Your task to perform on an android device: stop showing notifications on the lock screen Image 0: 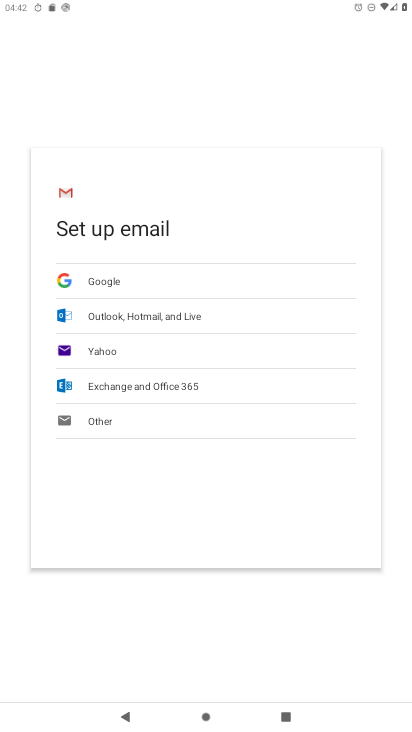
Step 0: press home button
Your task to perform on an android device: stop showing notifications on the lock screen Image 1: 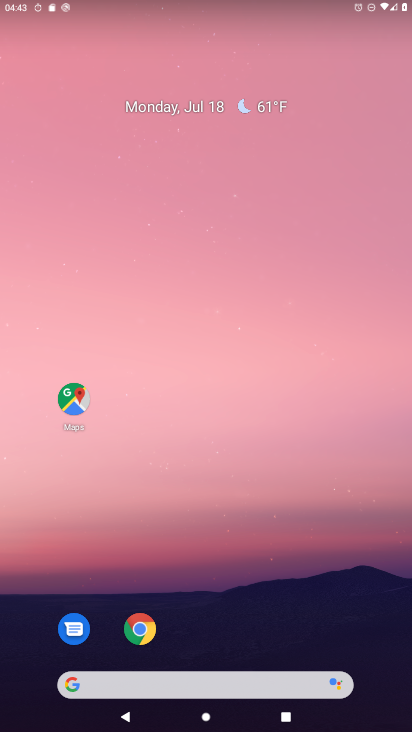
Step 1: drag from (204, 686) to (277, 91)
Your task to perform on an android device: stop showing notifications on the lock screen Image 2: 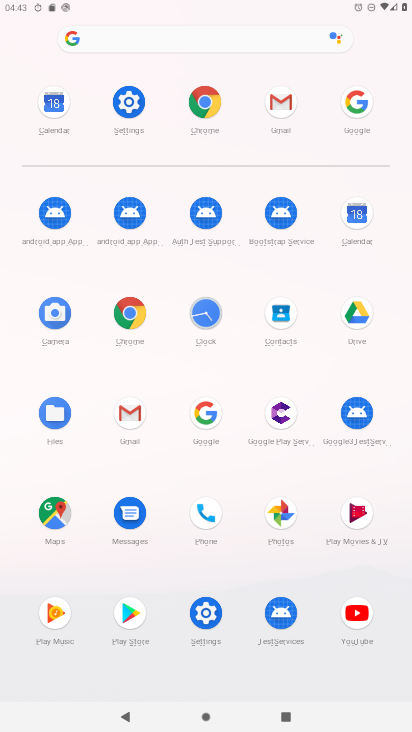
Step 2: click (132, 103)
Your task to perform on an android device: stop showing notifications on the lock screen Image 3: 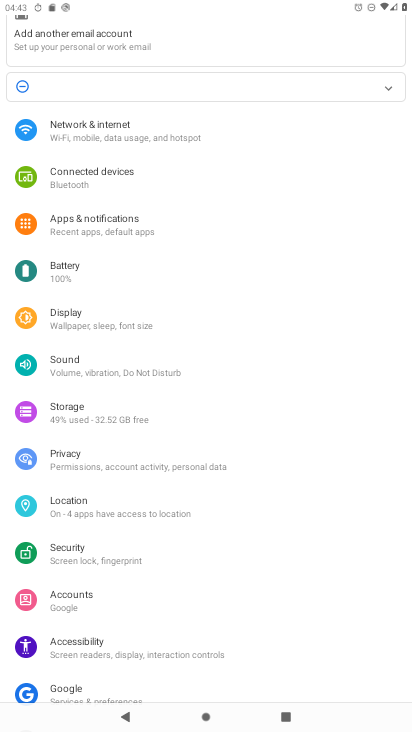
Step 3: click (129, 223)
Your task to perform on an android device: stop showing notifications on the lock screen Image 4: 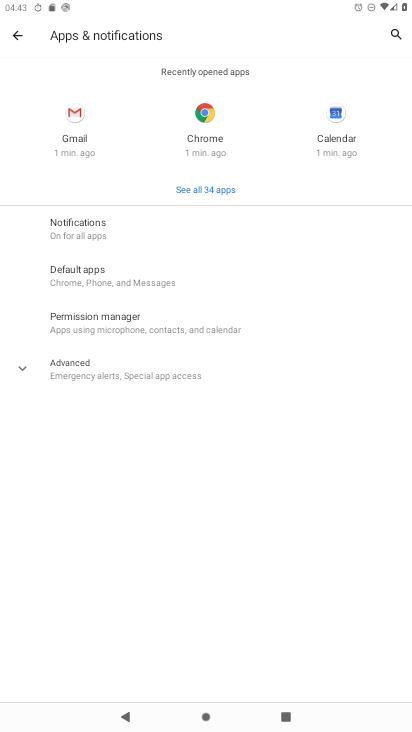
Step 4: click (99, 231)
Your task to perform on an android device: stop showing notifications on the lock screen Image 5: 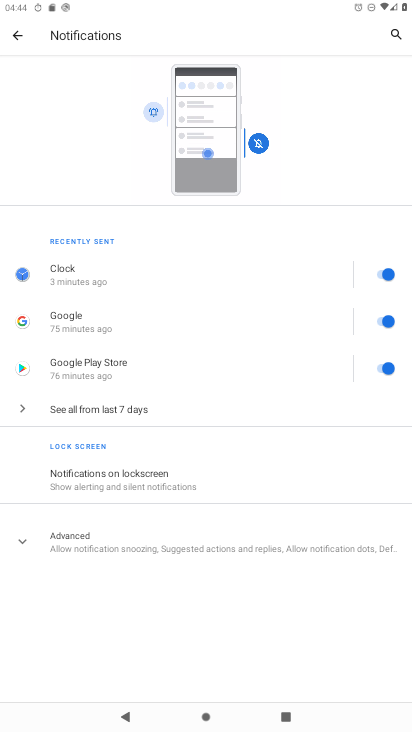
Step 5: click (89, 482)
Your task to perform on an android device: stop showing notifications on the lock screen Image 6: 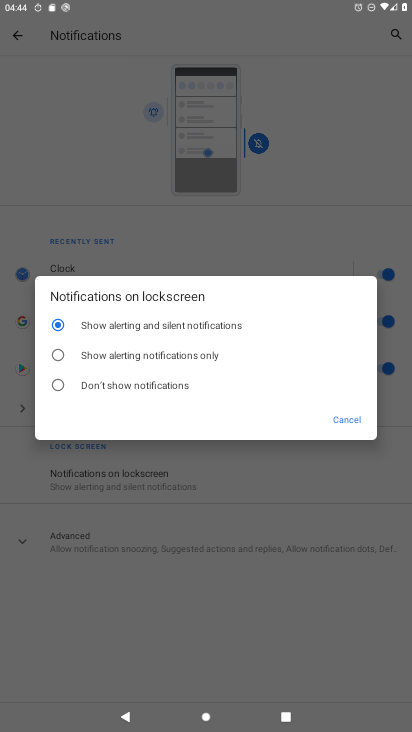
Step 6: click (58, 385)
Your task to perform on an android device: stop showing notifications on the lock screen Image 7: 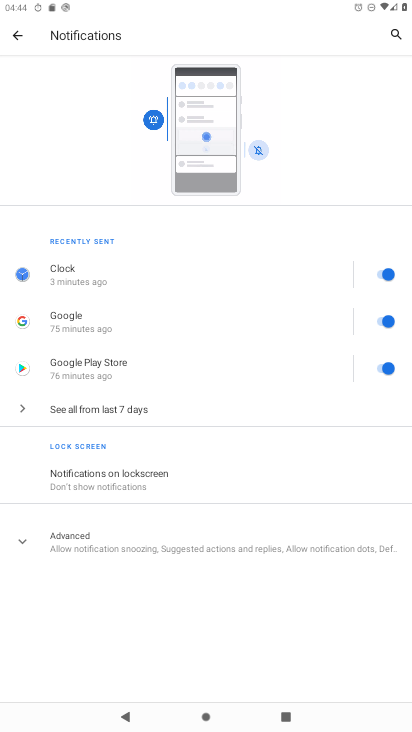
Step 7: task complete